Your task to perform on an android device: Open the calendar and show me this week's events Image 0: 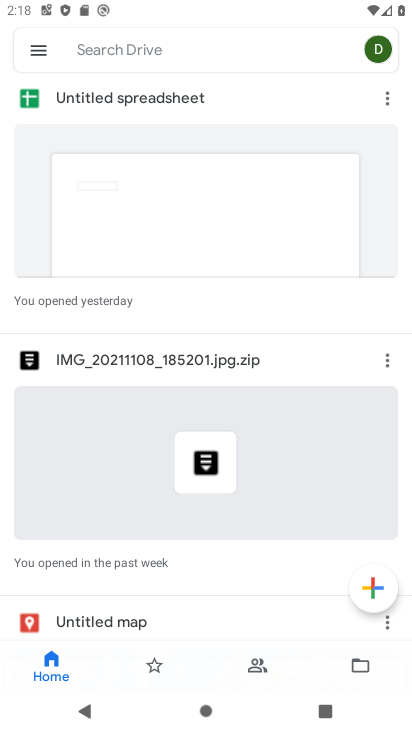
Step 0: press home button
Your task to perform on an android device: Open the calendar and show me this week's events Image 1: 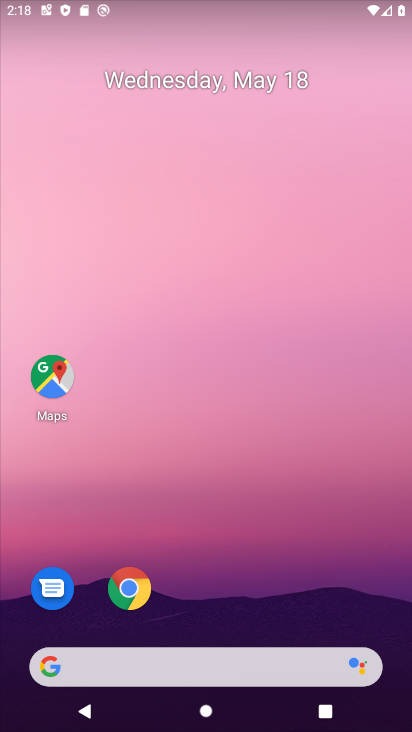
Step 1: drag from (369, 595) to (360, 155)
Your task to perform on an android device: Open the calendar and show me this week's events Image 2: 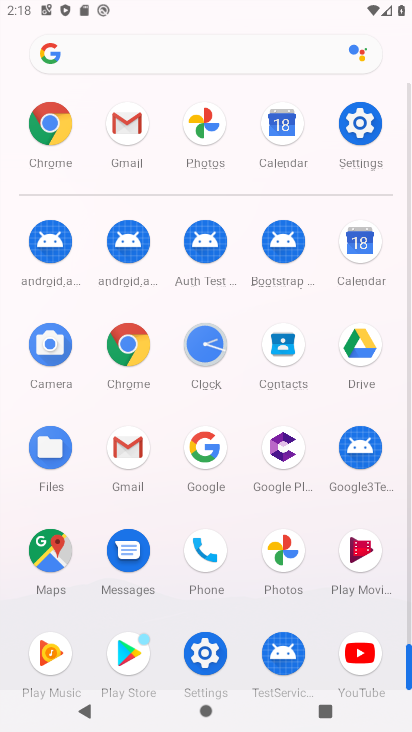
Step 2: click (363, 231)
Your task to perform on an android device: Open the calendar and show me this week's events Image 3: 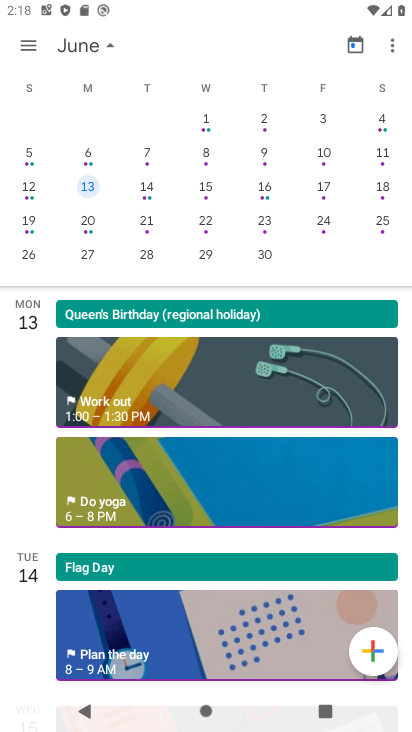
Step 3: drag from (144, 112) to (409, 113)
Your task to perform on an android device: Open the calendar and show me this week's events Image 4: 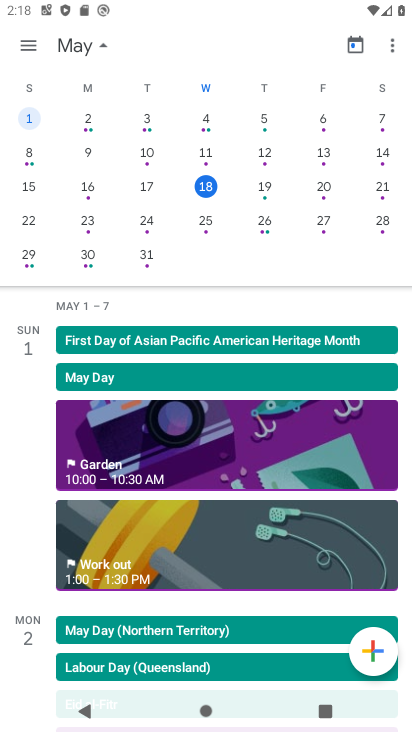
Step 4: click (262, 185)
Your task to perform on an android device: Open the calendar and show me this week's events Image 5: 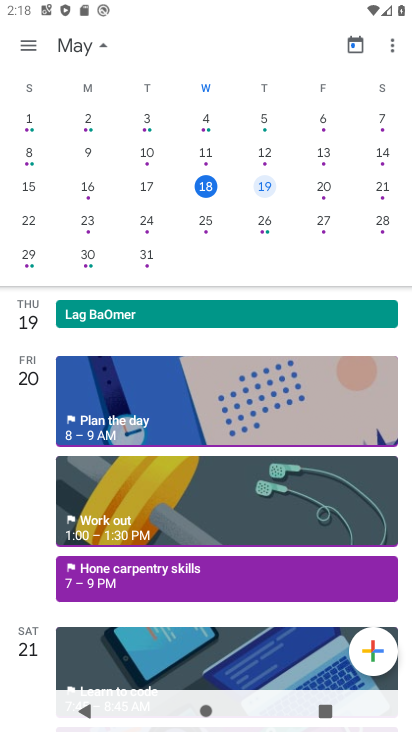
Step 5: task complete